Your task to perform on an android device: Search for seafood restaurants on Google Maps Image 0: 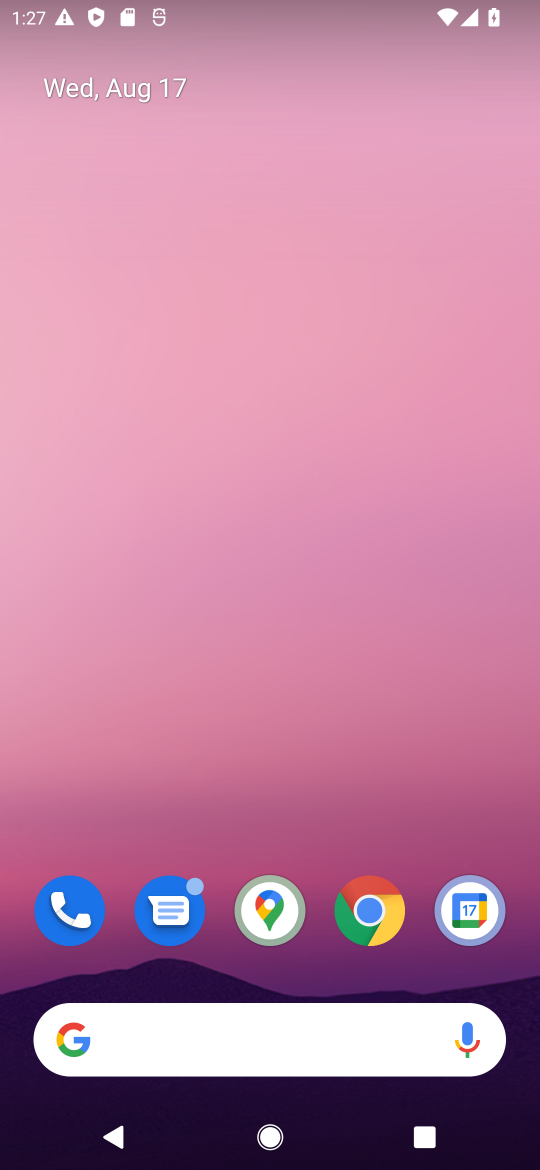
Step 0: click (266, 912)
Your task to perform on an android device: Search for seafood restaurants on Google Maps Image 1: 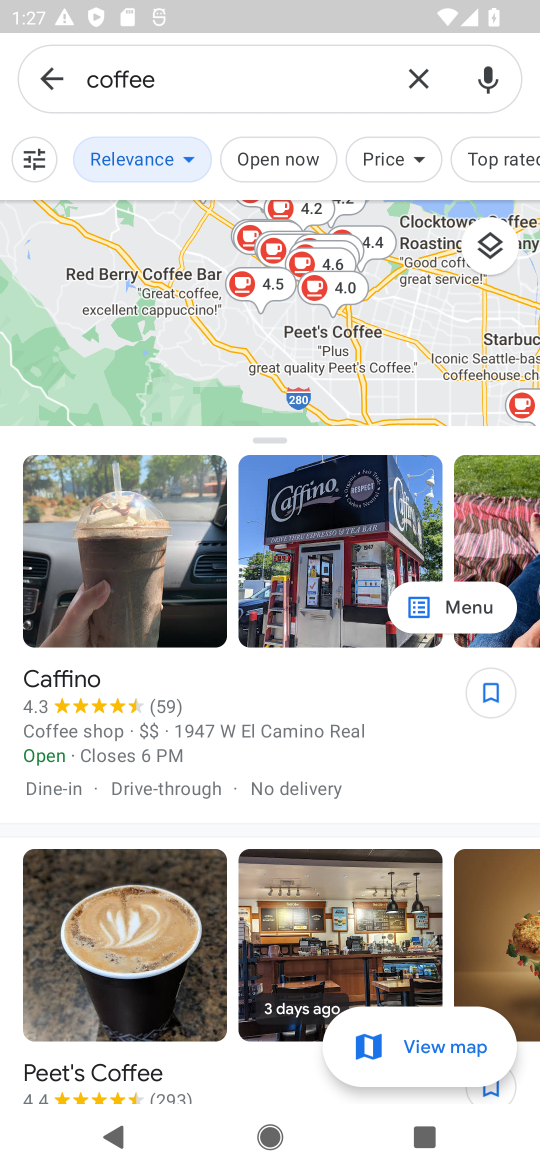
Step 1: click (409, 75)
Your task to perform on an android device: Search for seafood restaurants on Google Maps Image 2: 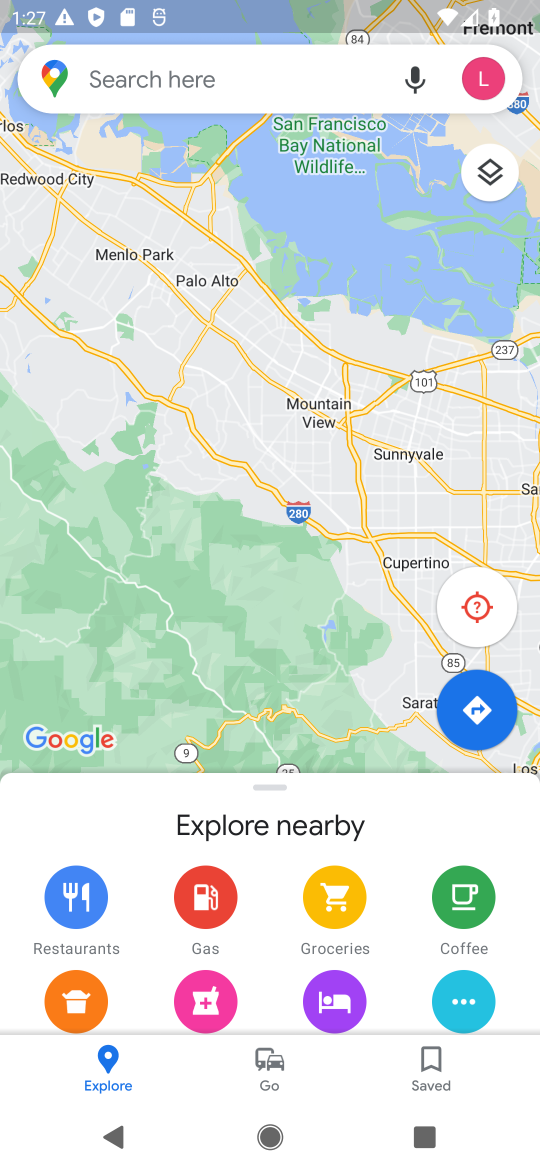
Step 2: click (173, 87)
Your task to perform on an android device: Search for seafood restaurants on Google Maps Image 3: 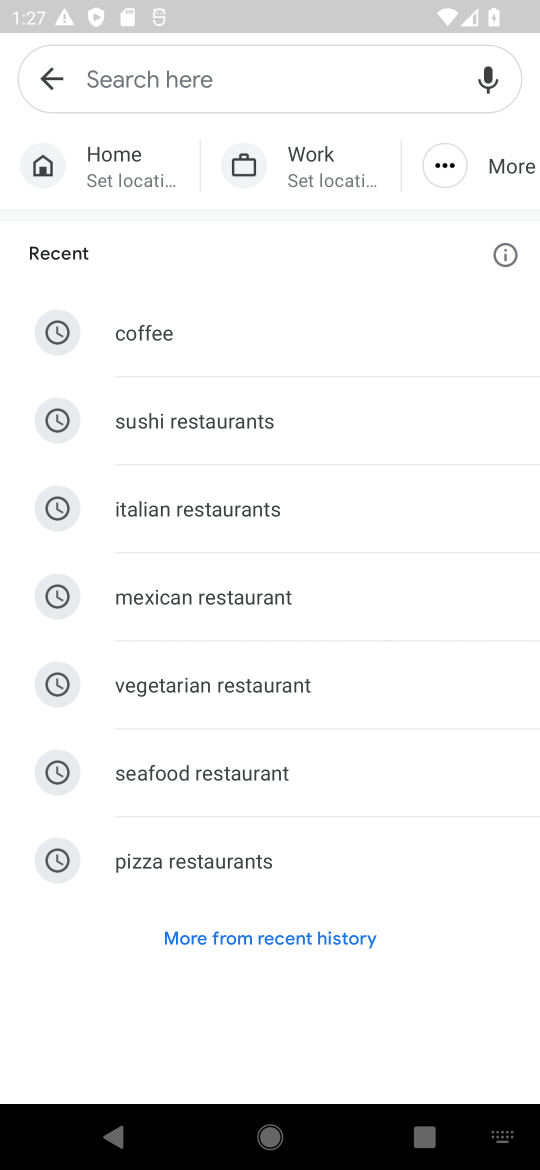
Step 3: click (157, 775)
Your task to perform on an android device: Search for seafood restaurants on Google Maps Image 4: 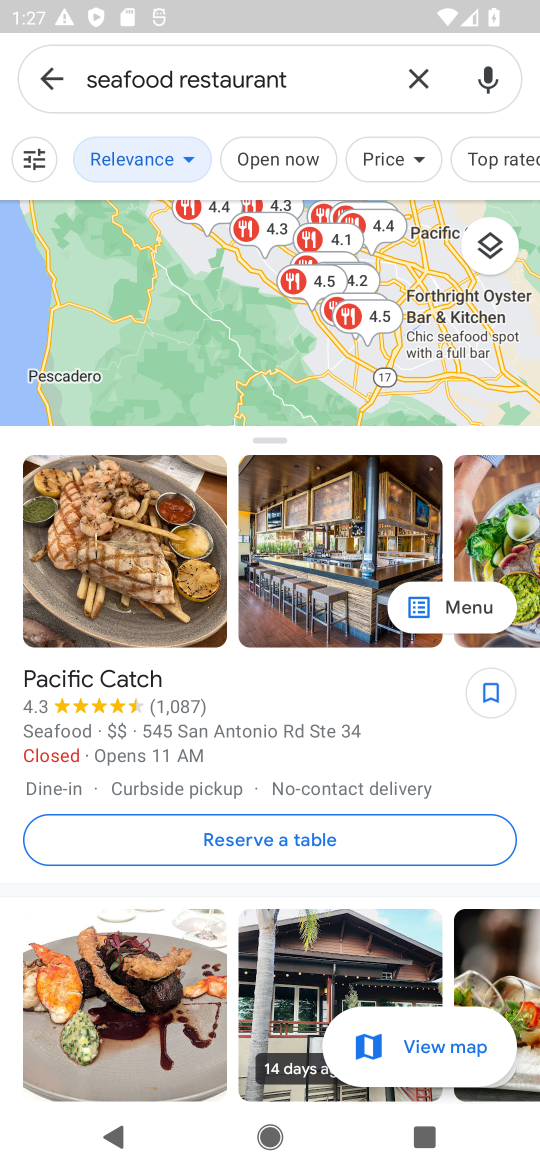
Step 4: task complete